Your task to perform on an android device: Show me productivity apps on the Play Store Image 0: 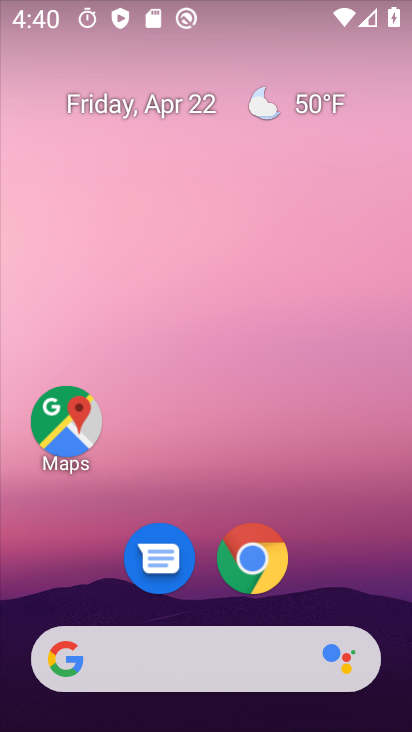
Step 0: drag from (339, 550) to (305, 188)
Your task to perform on an android device: Show me productivity apps on the Play Store Image 1: 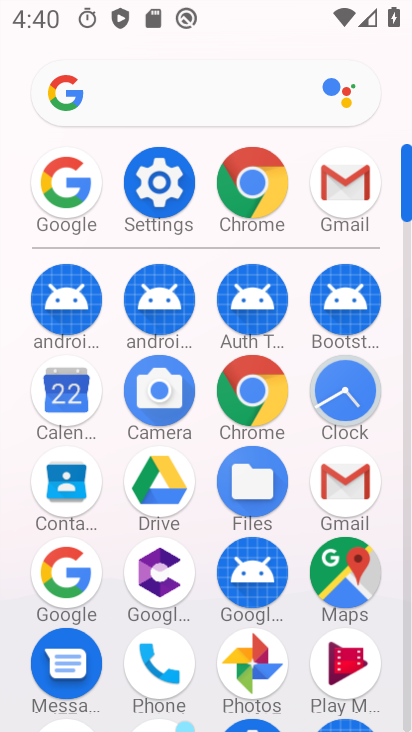
Step 1: drag from (304, 668) to (322, 424)
Your task to perform on an android device: Show me productivity apps on the Play Store Image 2: 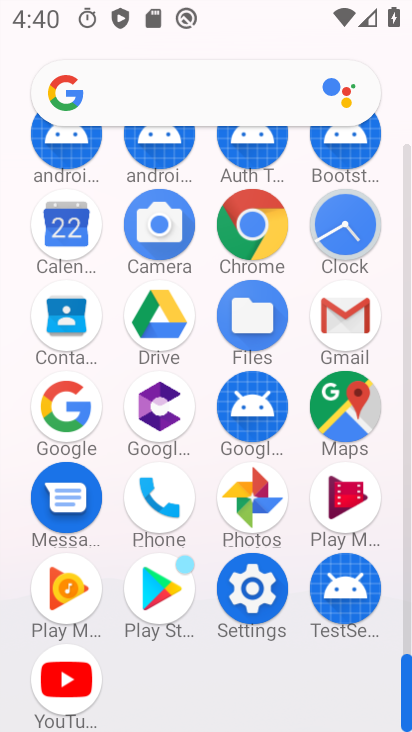
Step 2: click (166, 585)
Your task to perform on an android device: Show me productivity apps on the Play Store Image 3: 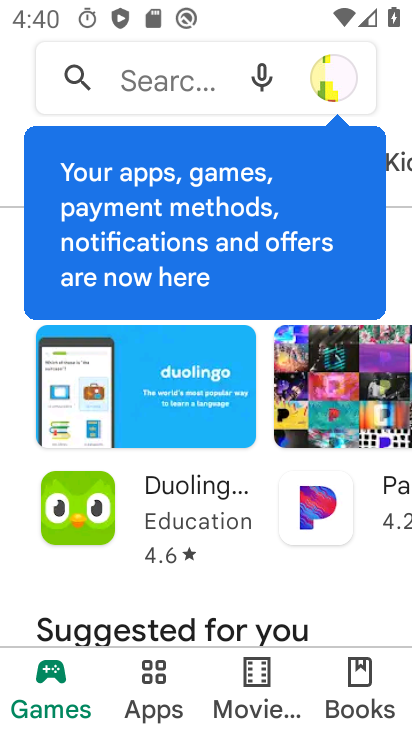
Step 3: click (209, 86)
Your task to perform on an android device: Show me productivity apps on the Play Store Image 4: 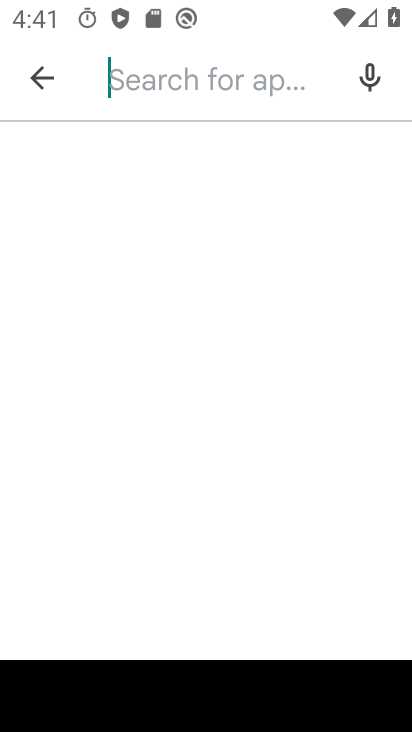
Step 4: type "productivity apps"
Your task to perform on an android device: Show me productivity apps on the Play Store Image 5: 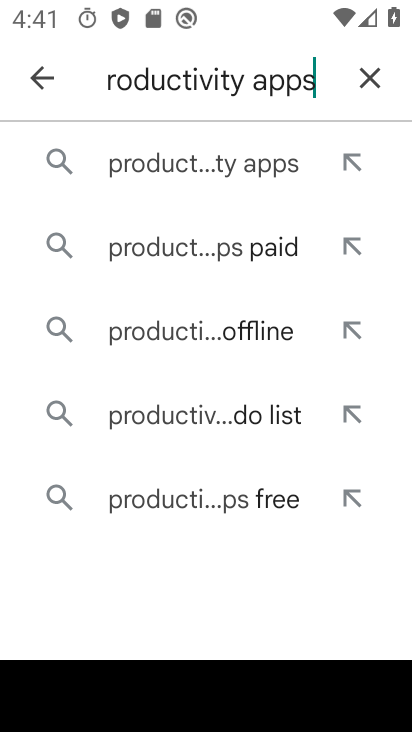
Step 5: click (221, 172)
Your task to perform on an android device: Show me productivity apps on the Play Store Image 6: 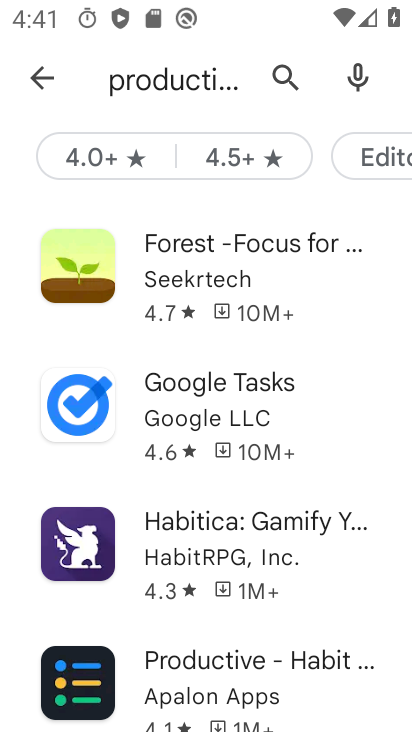
Step 6: task complete